Your task to perform on an android device: Go to Google maps Image 0: 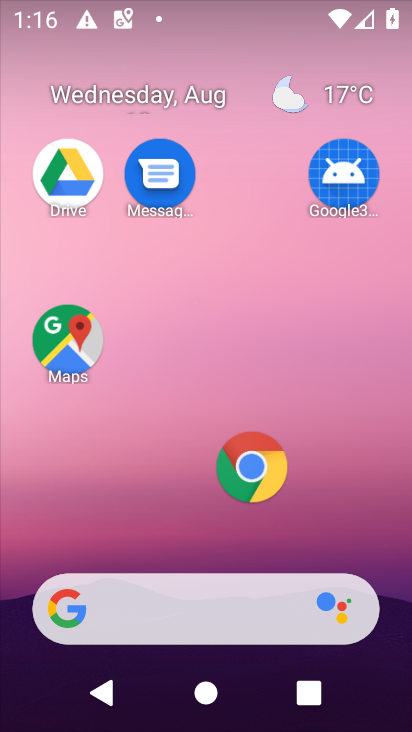
Step 0: click (57, 344)
Your task to perform on an android device: Go to Google maps Image 1: 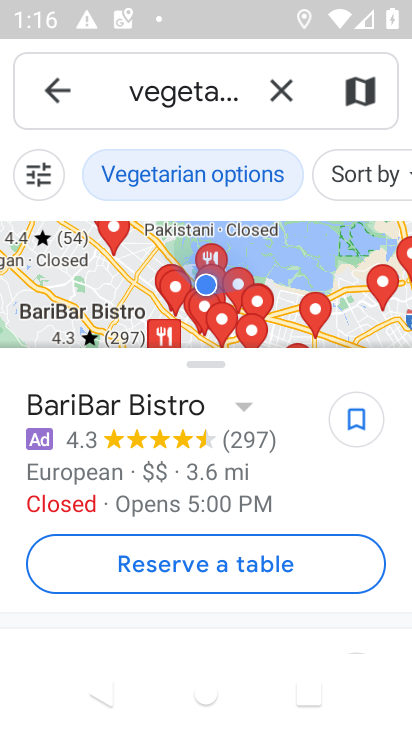
Step 1: task complete